Your task to perform on an android device: open app "Spotify: Music and Podcasts" (install if not already installed) Image 0: 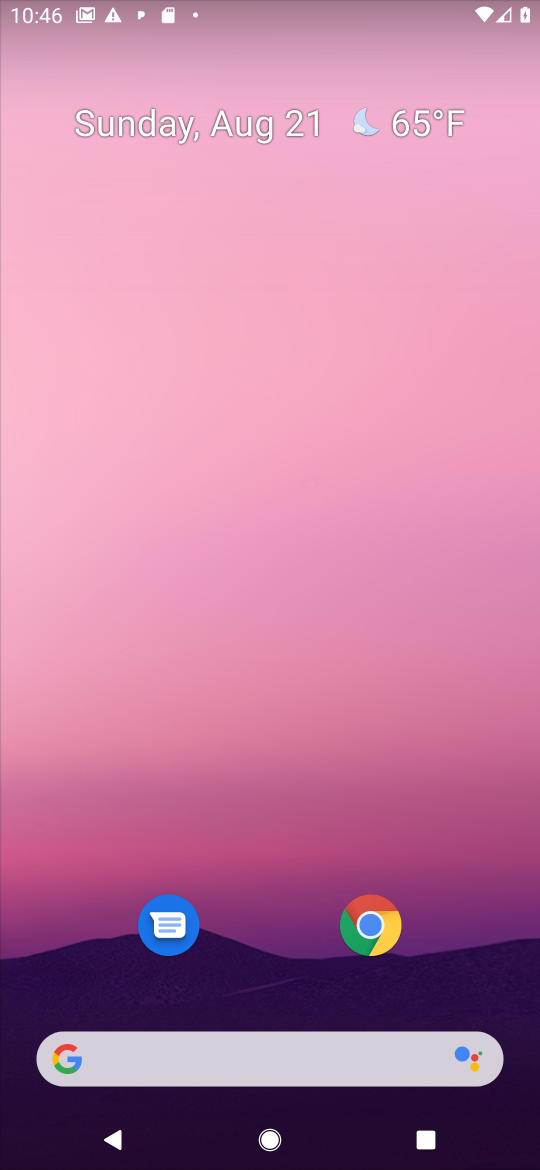
Step 0: drag from (262, 918) to (428, 222)
Your task to perform on an android device: open app "Spotify: Music and Podcasts" (install if not already installed) Image 1: 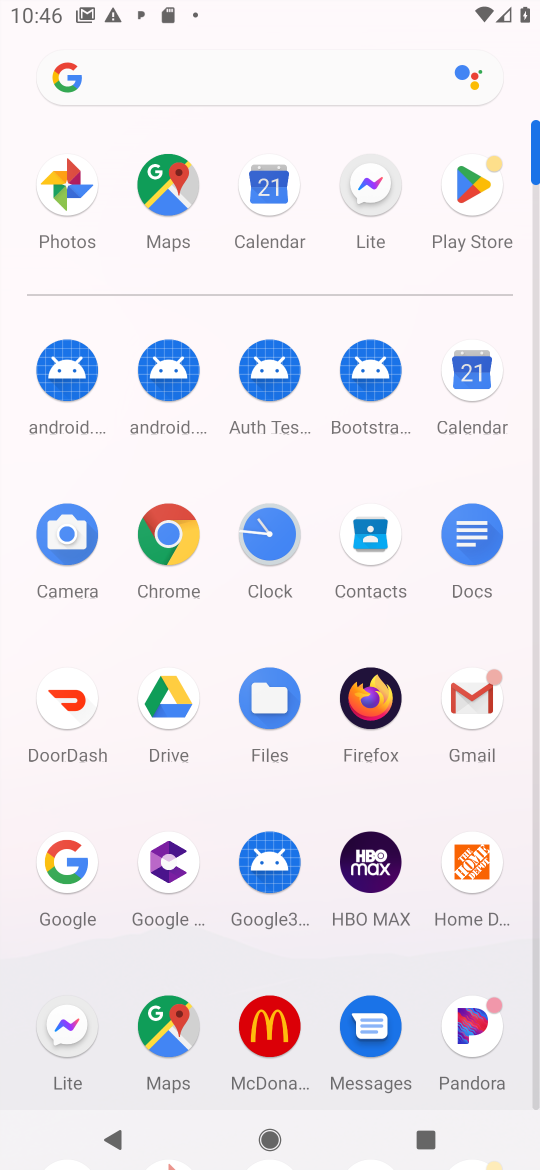
Step 1: click (491, 184)
Your task to perform on an android device: open app "Spotify: Music and Podcasts" (install if not already installed) Image 2: 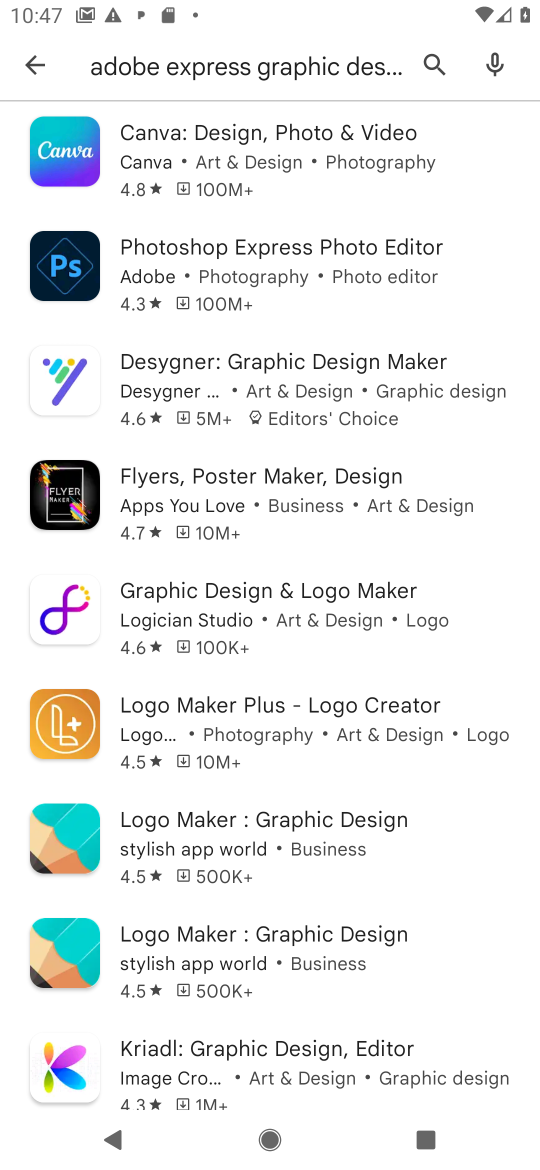
Step 2: click (442, 74)
Your task to perform on an android device: open app "Spotify: Music and Podcasts" (install if not already installed) Image 3: 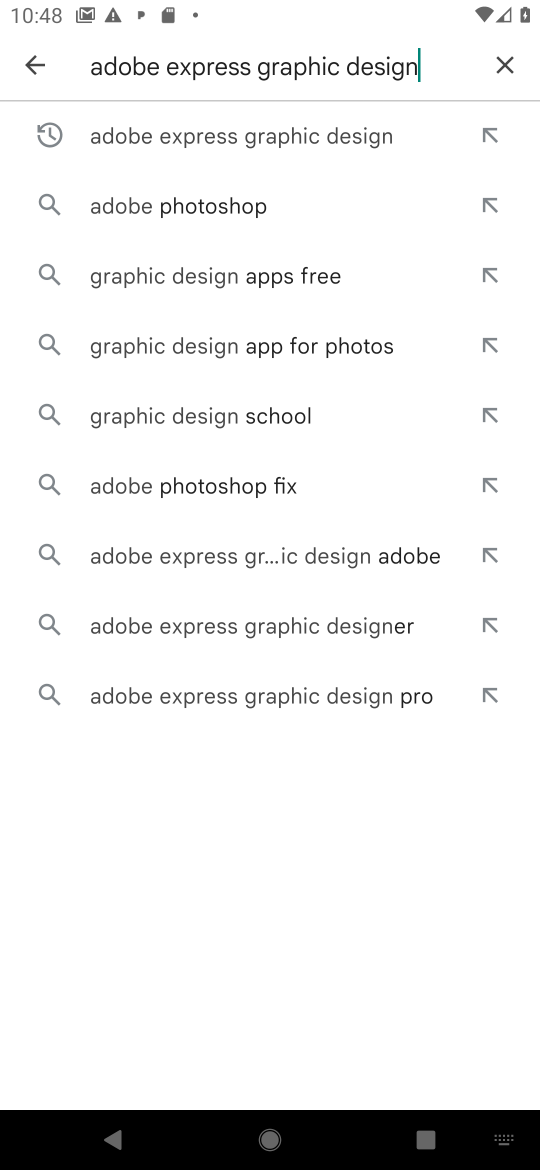
Step 3: click (498, 60)
Your task to perform on an android device: open app "Spotify: Music and Podcasts" (install if not already installed) Image 4: 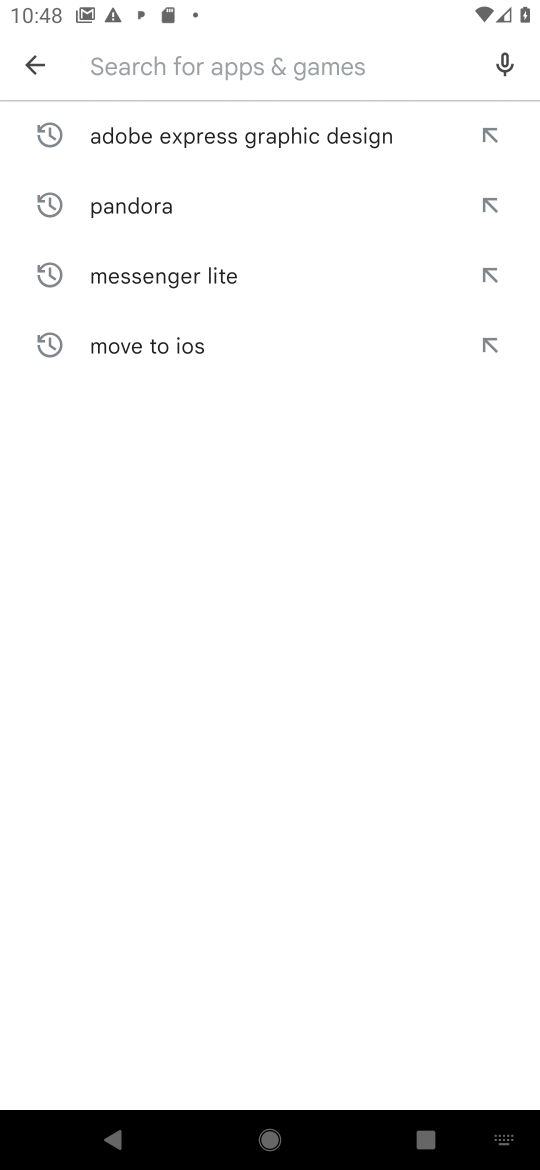
Step 4: click (192, 58)
Your task to perform on an android device: open app "Spotify: Music and Podcasts" (install if not already installed) Image 5: 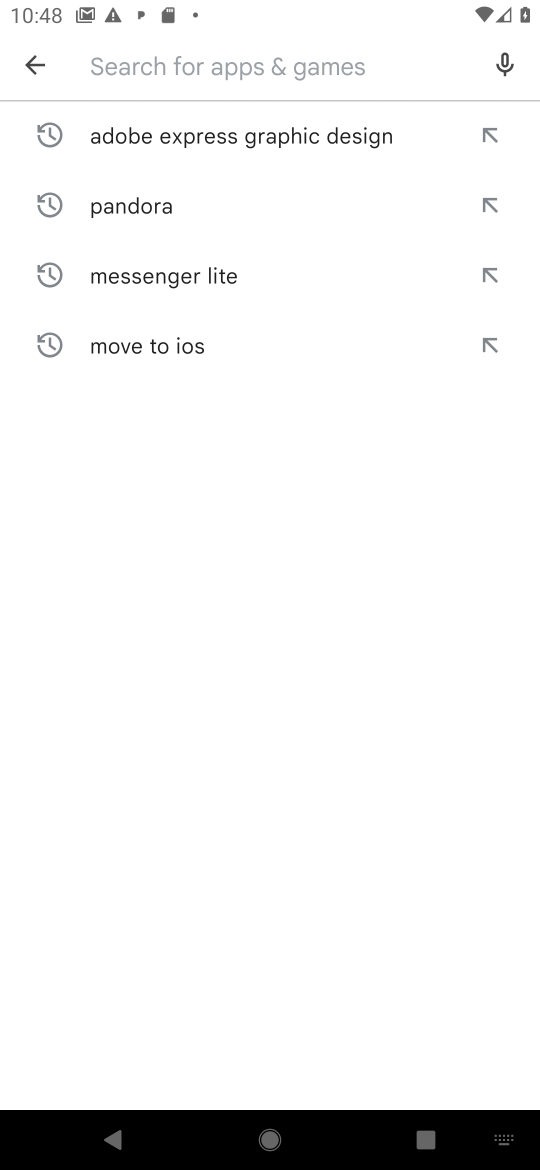
Step 5: type "Spotify: Music and Podcasts"
Your task to perform on an android device: open app "Spotify: Music and Podcasts" (install if not already installed) Image 6: 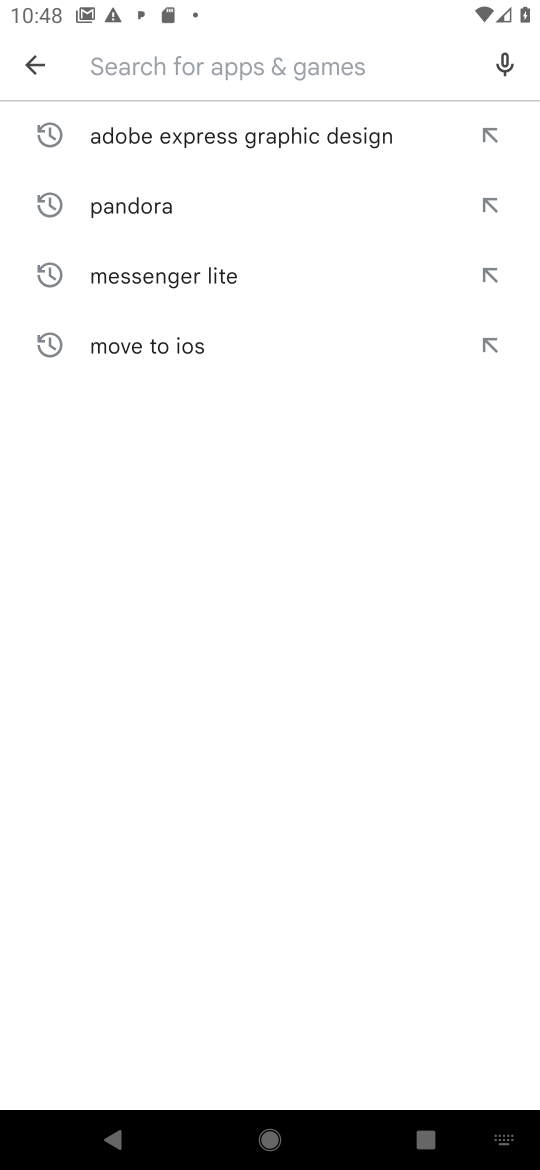
Step 6: click (290, 644)
Your task to perform on an android device: open app "Spotify: Music and Podcasts" (install if not already installed) Image 7: 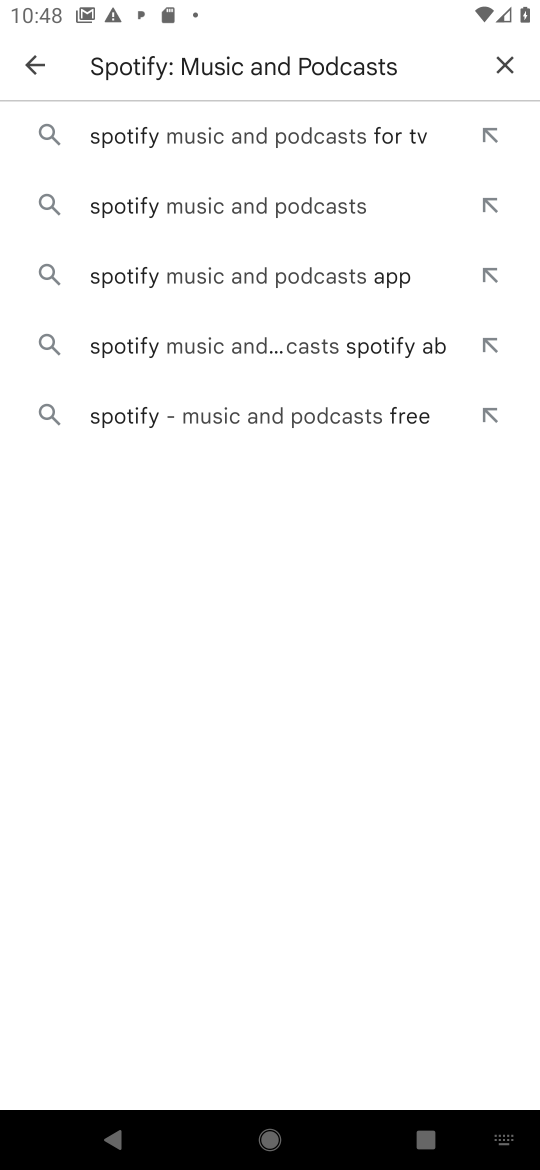
Step 7: click (240, 149)
Your task to perform on an android device: open app "Spotify: Music and Podcasts" (install if not already installed) Image 8: 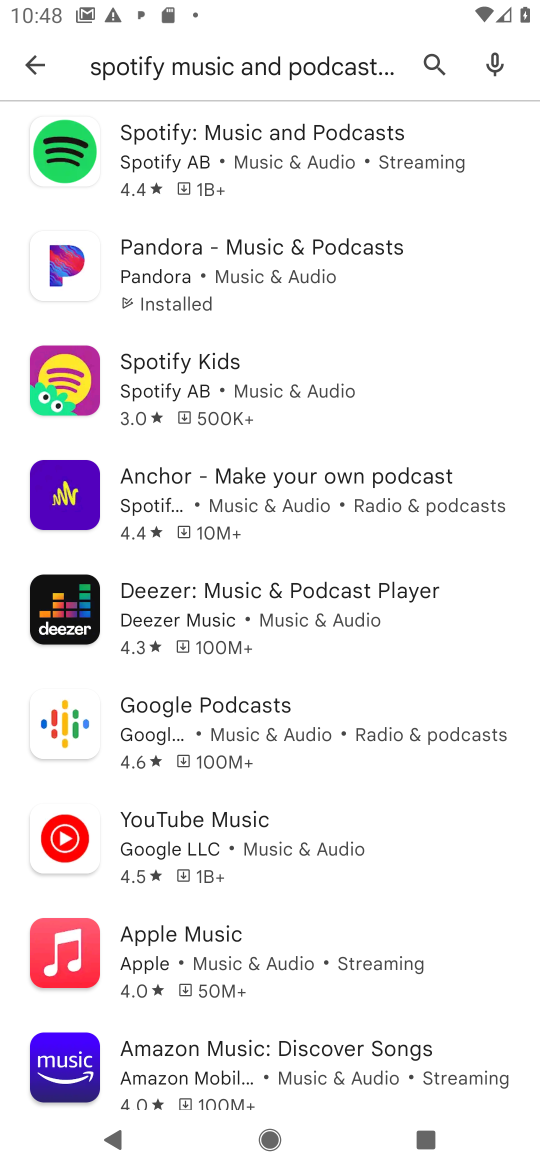
Step 8: click (213, 154)
Your task to perform on an android device: open app "Spotify: Music and Podcasts" (install if not already installed) Image 9: 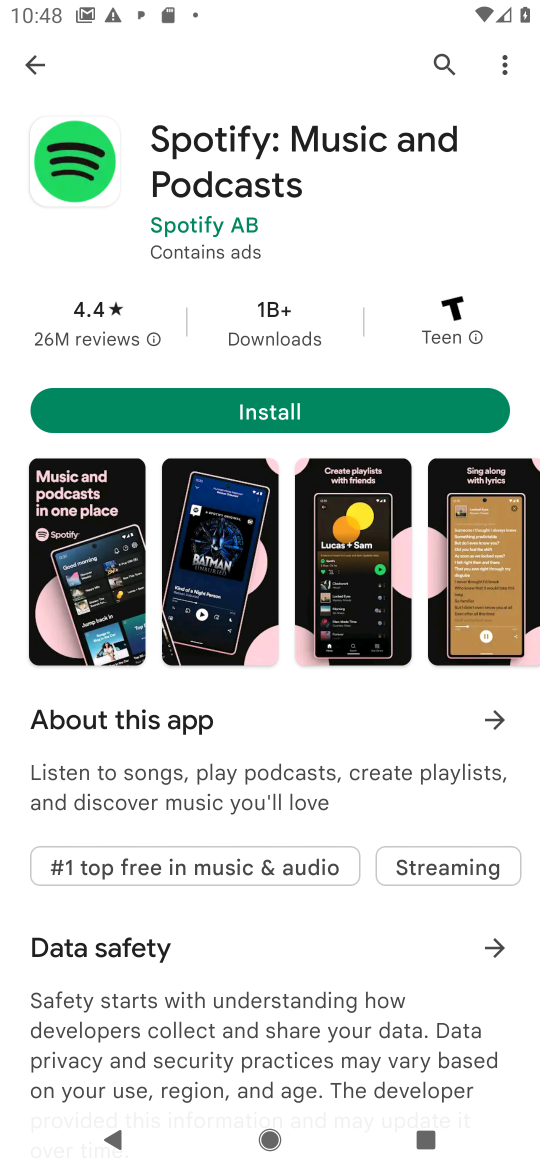
Step 9: click (266, 416)
Your task to perform on an android device: open app "Spotify: Music and Podcasts" (install if not already installed) Image 10: 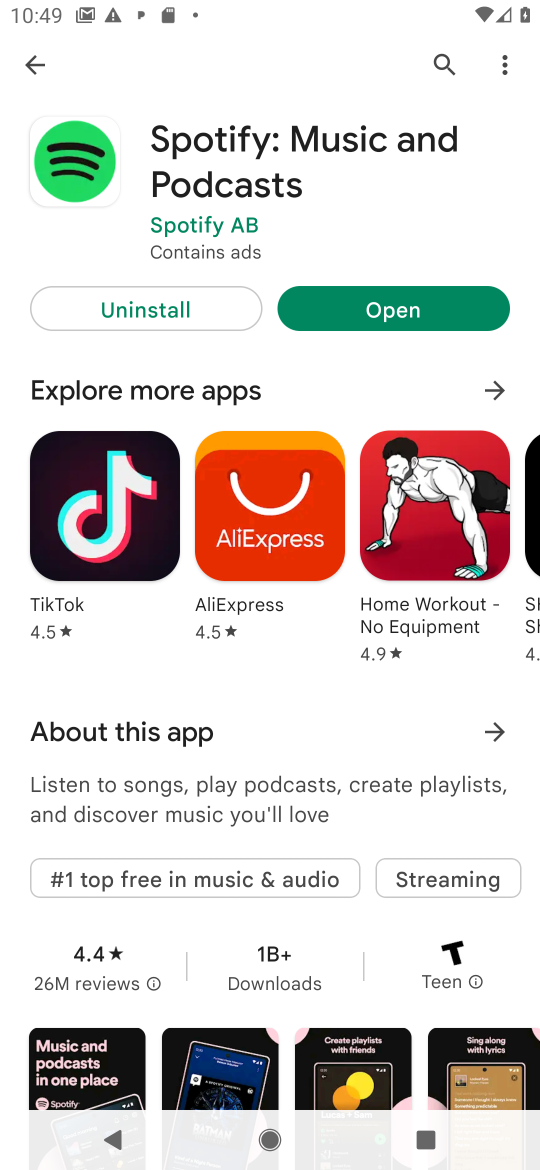
Step 10: click (392, 308)
Your task to perform on an android device: open app "Spotify: Music and Podcasts" (install if not already installed) Image 11: 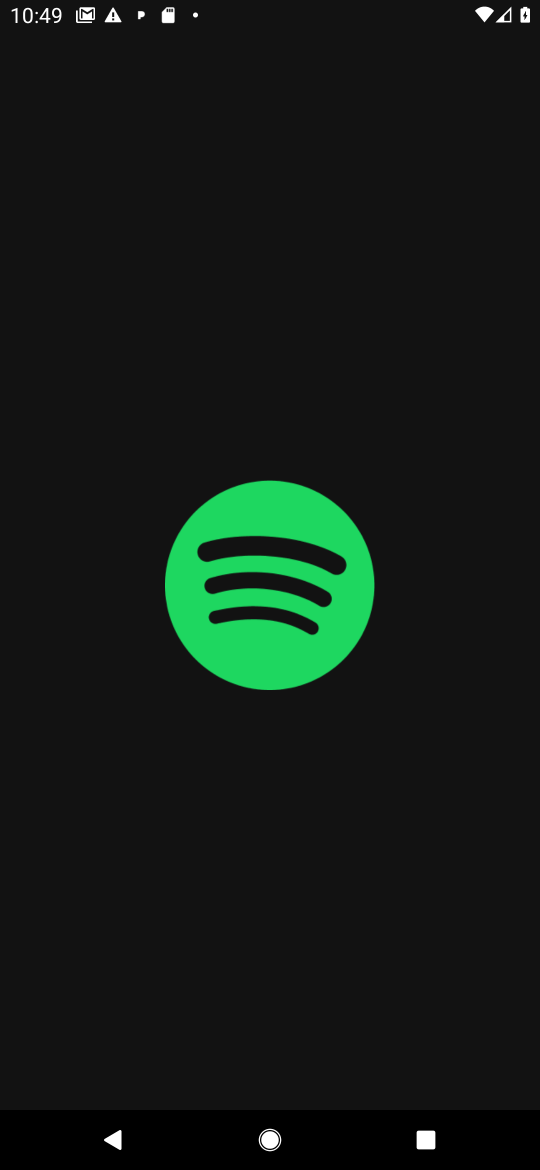
Step 11: task complete